Your task to perform on an android device: Open Youtube and go to "Your channel" Image 0: 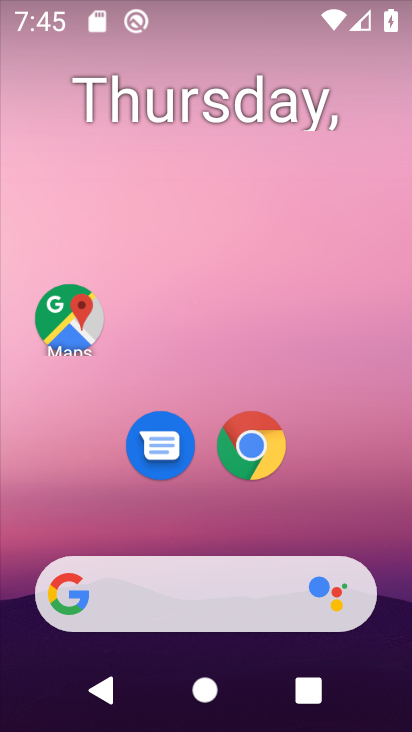
Step 0: drag from (376, 704) to (225, 135)
Your task to perform on an android device: Open Youtube and go to "Your channel" Image 1: 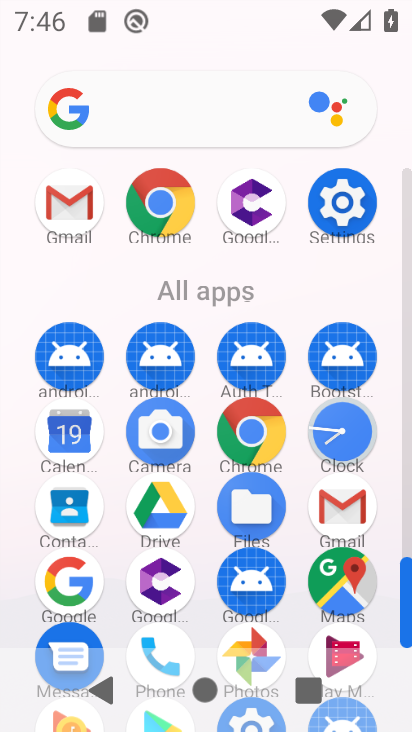
Step 1: drag from (300, 551) to (287, 157)
Your task to perform on an android device: Open Youtube and go to "Your channel" Image 2: 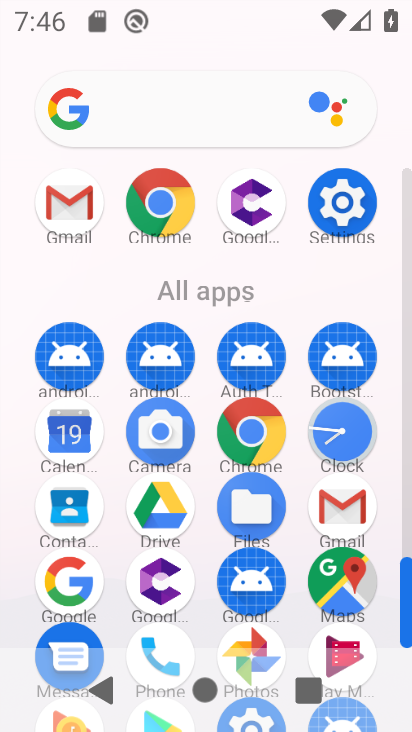
Step 2: drag from (284, 468) to (246, 151)
Your task to perform on an android device: Open Youtube and go to "Your channel" Image 3: 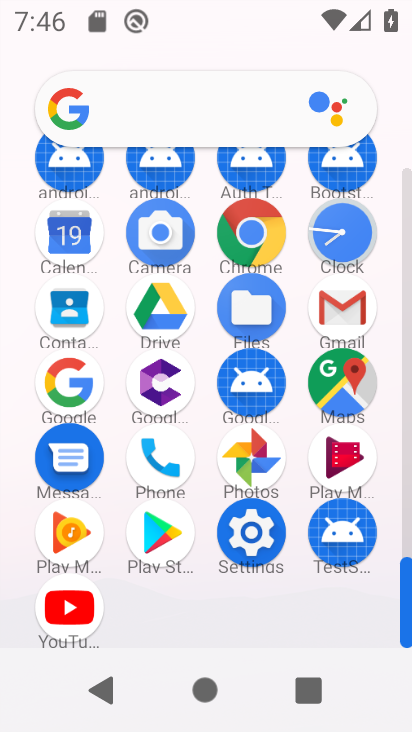
Step 3: click (74, 601)
Your task to perform on an android device: Open Youtube and go to "Your channel" Image 4: 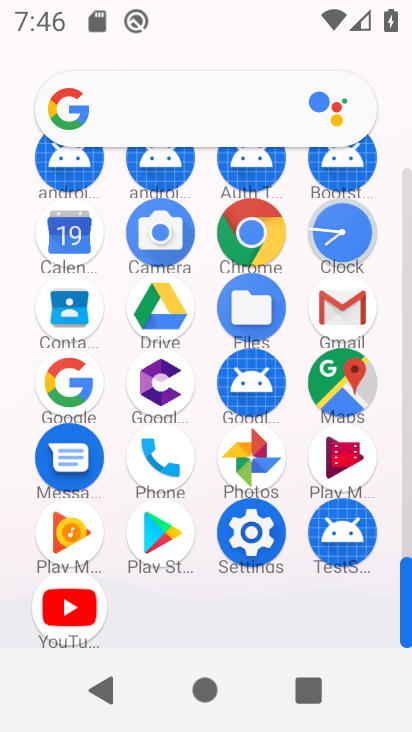
Step 4: click (74, 601)
Your task to perform on an android device: Open Youtube and go to "Your channel" Image 5: 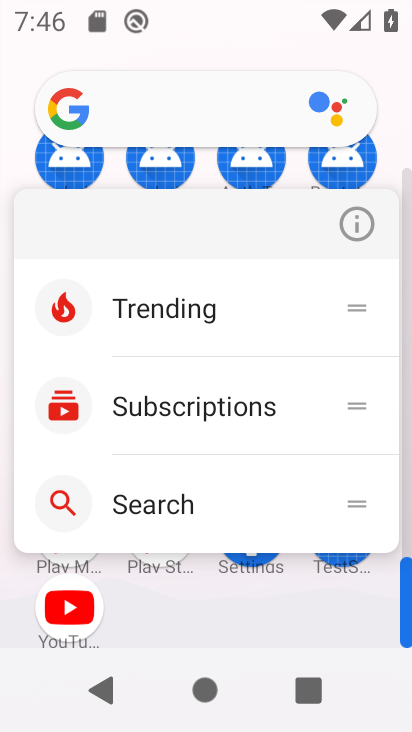
Step 5: click (79, 600)
Your task to perform on an android device: Open Youtube and go to "Your channel" Image 6: 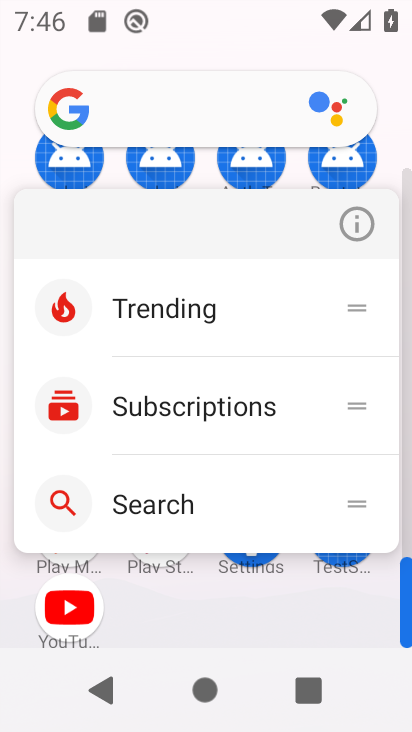
Step 6: click (81, 599)
Your task to perform on an android device: Open Youtube and go to "Your channel" Image 7: 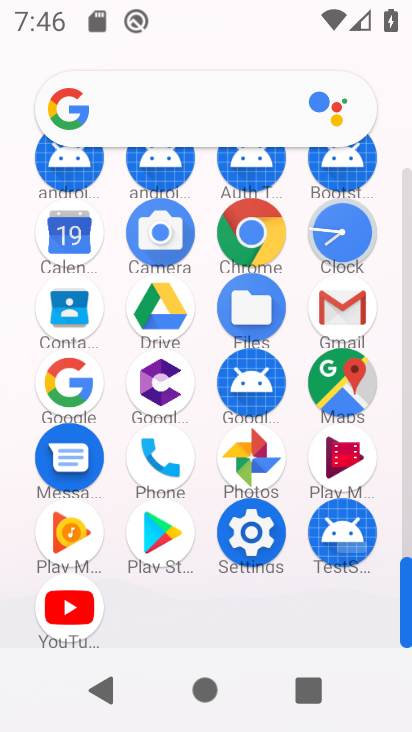
Step 7: click (81, 599)
Your task to perform on an android device: Open Youtube and go to "Your channel" Image 8: 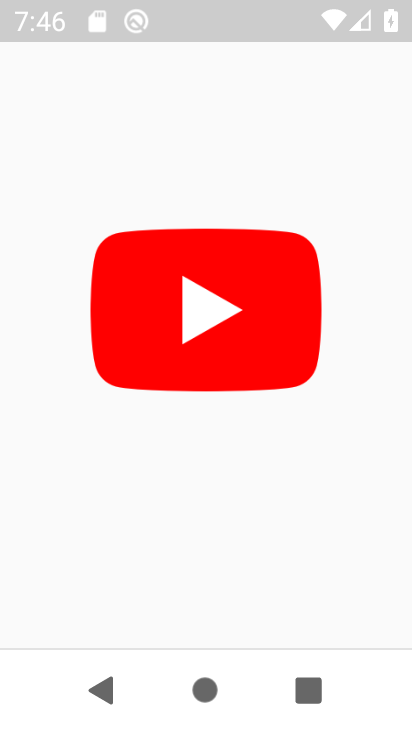
Step 8: click (81, 599)
Your task to perform on an android device: Open Youtube and go to "Your channel" Image 9: 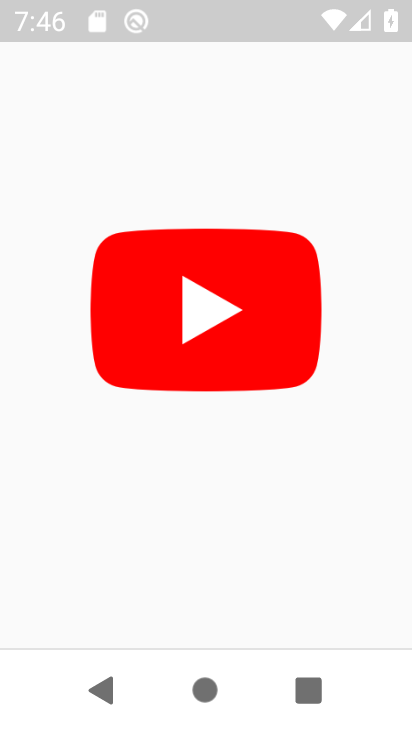
Step 9: click (81, 599)
Your task to perform on an android device: Open Youtube and go to "Your channel" Image 10: 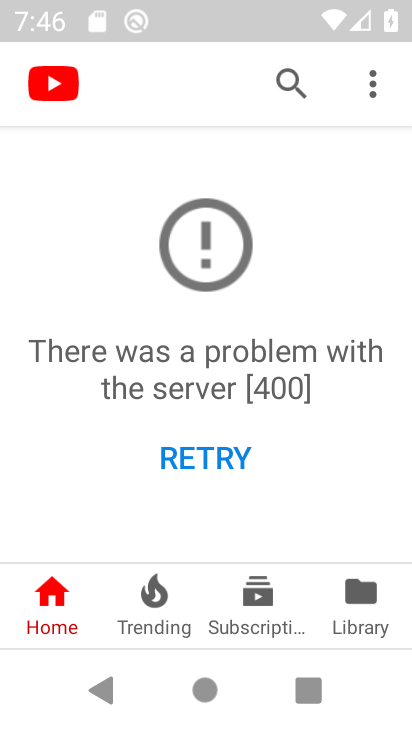
Step 10: task complete